Your task to perform on an android device: turn on the 24-hour format for clock Image 0: 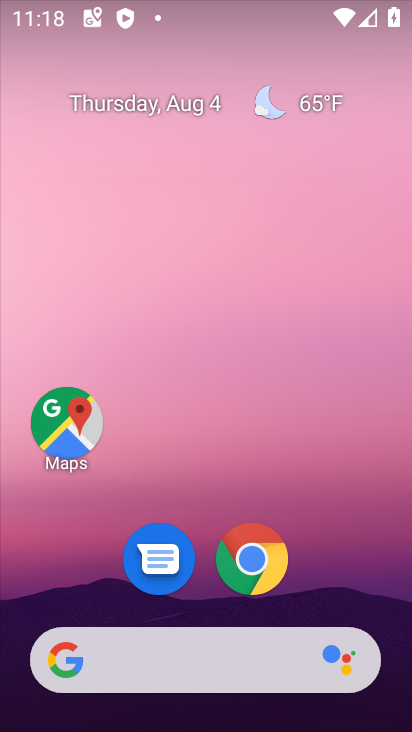
Step 0: drag from (365, 587) to (366, 100)
Your task to perform on an android device: turn on the 24-hour format for clock Image 1: 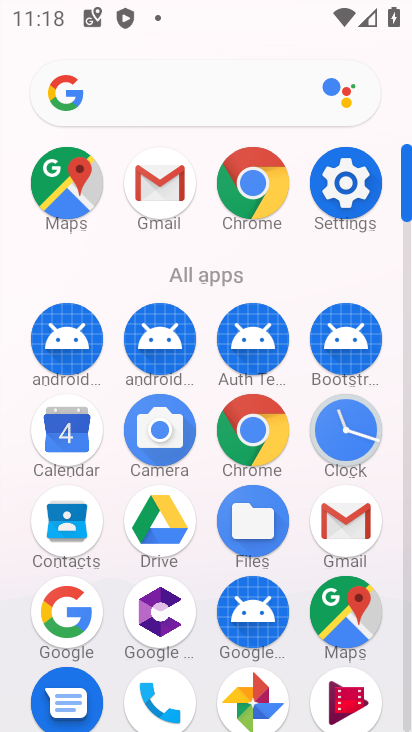
Step 1: click (352, 421)
Your task to perform on an android device: turn on the 24-hour format for clock Image 2: 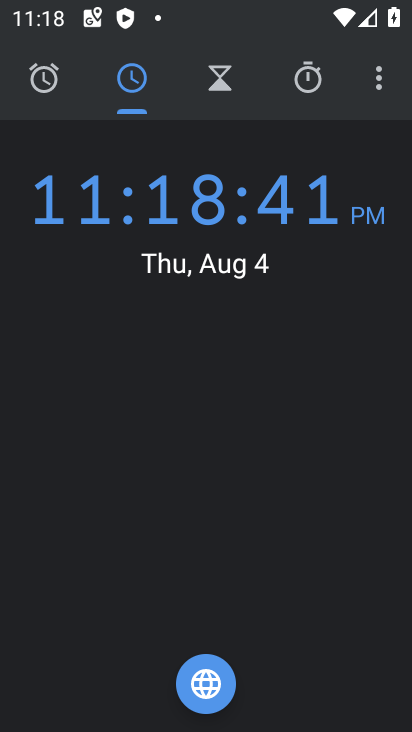
Step 2: click (383, 74)
Your task to perform on an android device: turn on the 24-hour format for clock Image 3: 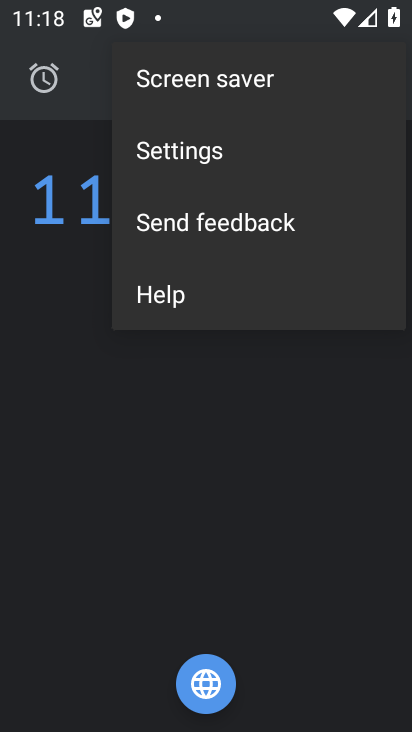
Step 3: click (145, 146)
Your task to perform on an android device: turn on the 24-hour format for clock Image 4: 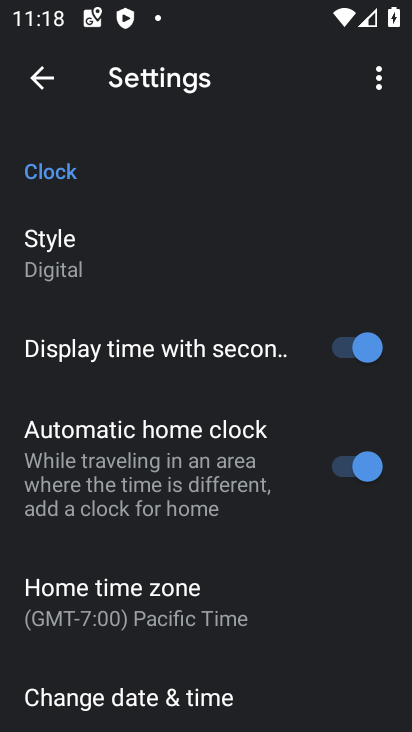
Step 4: drag from (293, 590) to (259, 362)
Your task to perform on an android device: turn on the 24-hour format for clock Image 5: 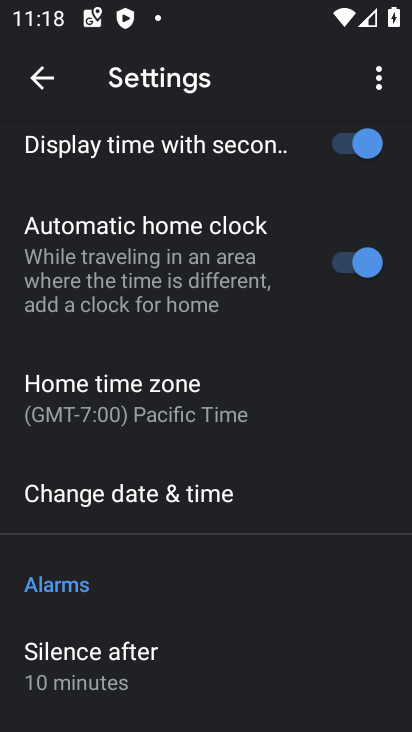
Step 5: click (247, 483)
Your task to perform on an android device: turn on the 24-hour format for clock Image 6: 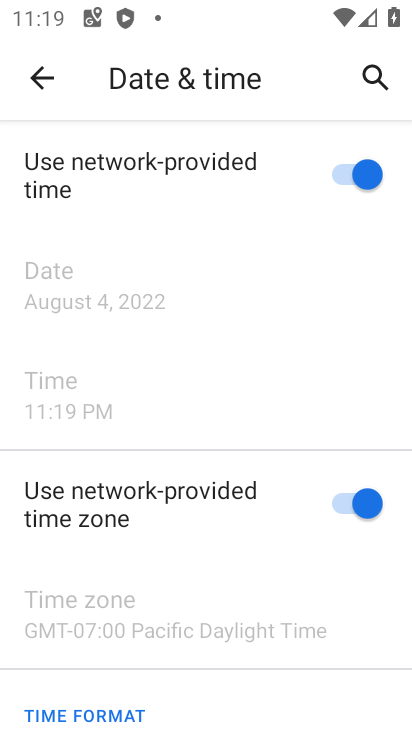
Step 6: drag from (344, 639) to (346, 227)
Your task to perform on an android device: turn on the 24-hour format for clock Image 7: 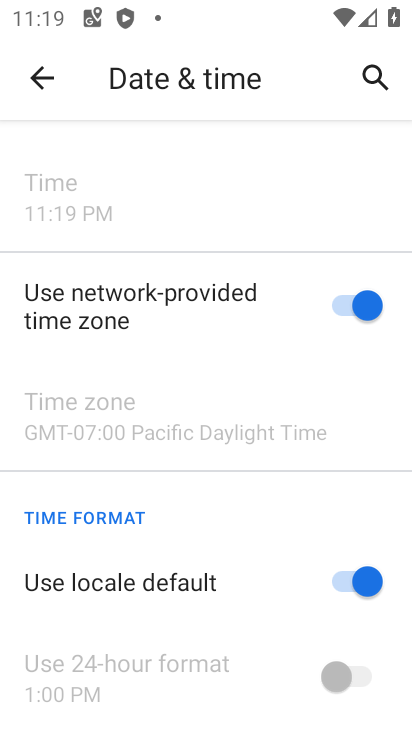
Step 7: click (346, 570)
Your task to perform on an android device: turn on the 24-hour format for clock Image 8: 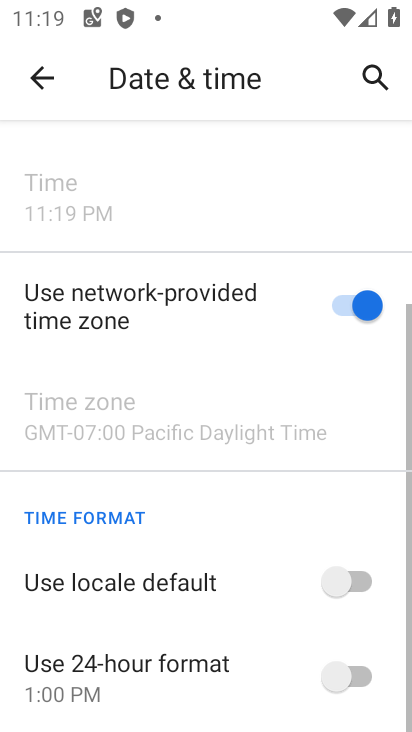
Step 8: click (344, 683)
Your task to perform on an android device: turn on the 24-hour format for clock Image 9: 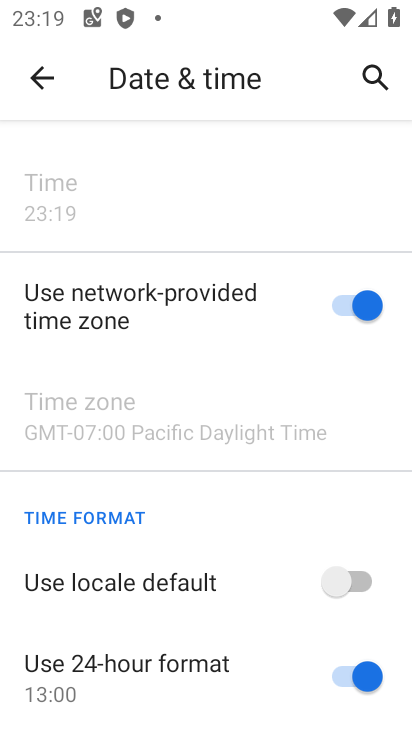
Step 9: task complete